Your task to perform on an android device: turn on sleep mode Image 0: 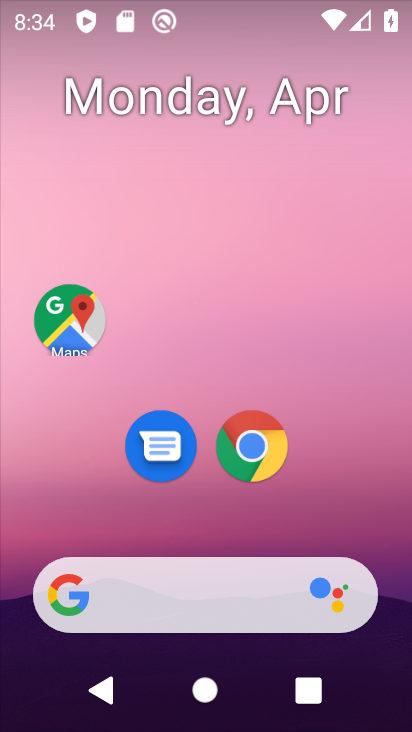
Step 0: drag from (352, 514) to (393, 1)
Your task to perform on an android device: turn on sleep mode Image 1: 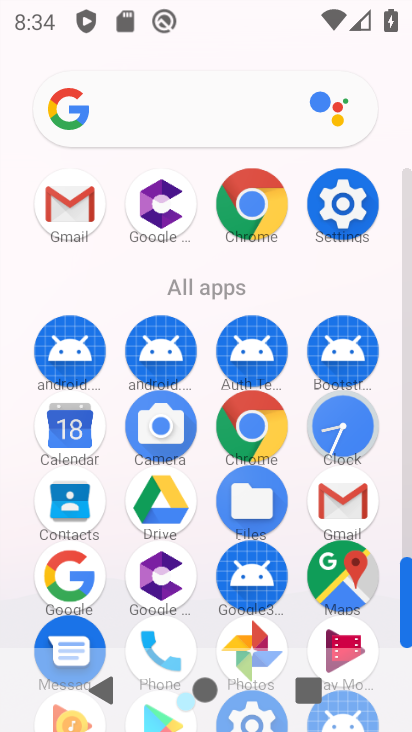
Step 1: click (346, 220)
Your task to perform on an android device: turn on sleep mode Image 2: 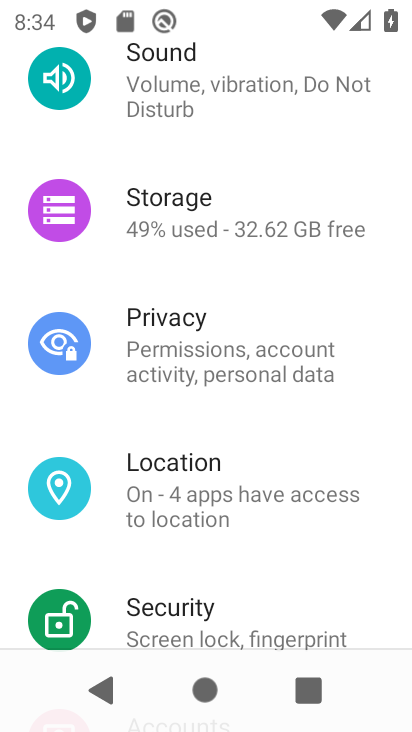
Step 2: drag from (389, 257) to (397, 474)
Your task to perform on an android device: turn on sleep mode Image 3: 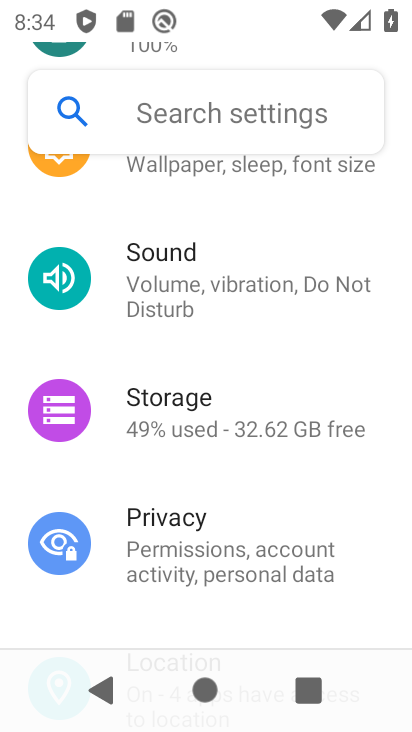
Step 3: drag from (396, 254) to (375, 467)
Your task to perform on an android device: turn on sleep mode Image 4: 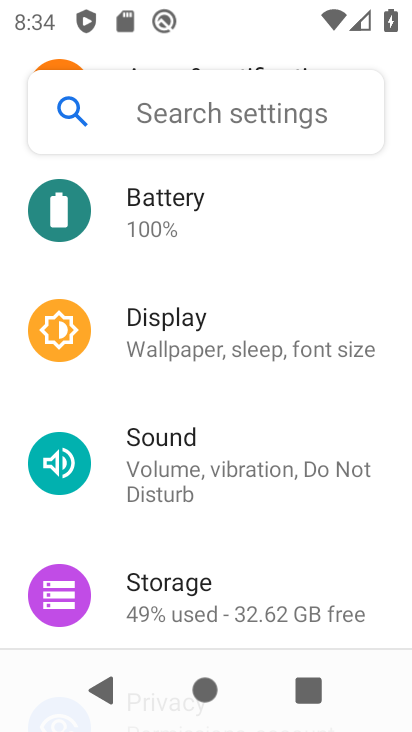
Step 4: click (303, 354)
Your task to perform on an android device: turn on sleep mode Image 5: 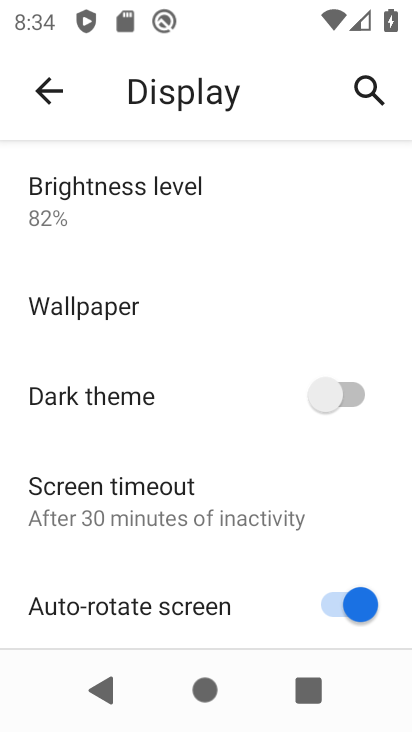
Step 5: drag from (277, 413) to (272, 179)
Your task to perform on an android device: turn on sleep mode Image 6: 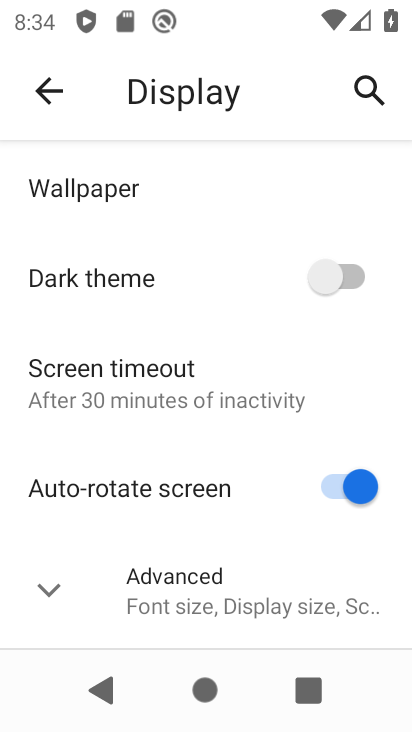
Step 6: click (228, 592)
Your task to perform on an android device: turn on sleep mode Image 7: 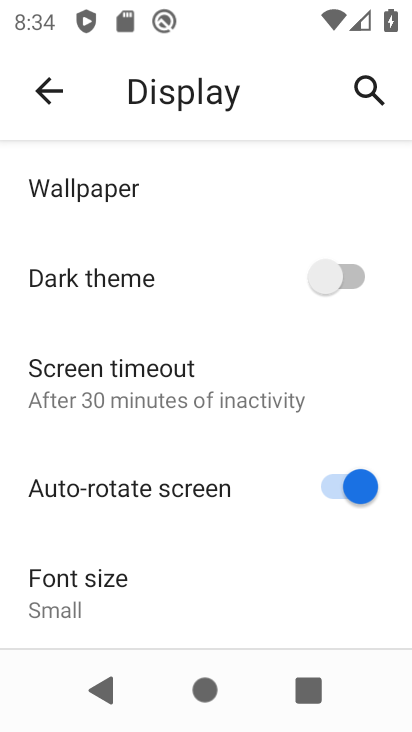
Step 7: task complete